Your task to perform on an android device: Open Chrome and go to the settings page Image 0: 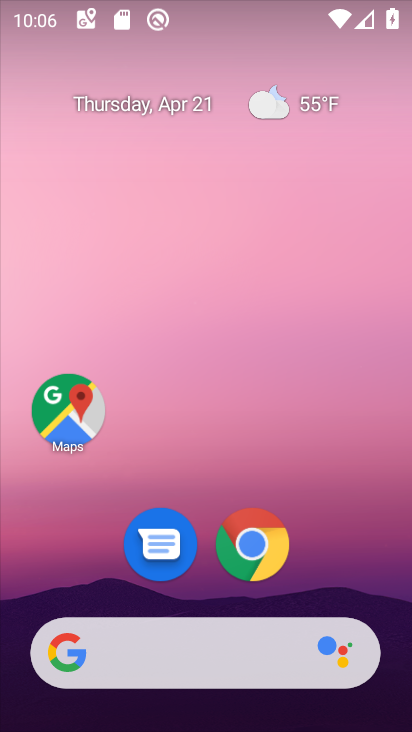
Step 0: drag from (347, 586) to (220, 29)
Your task to perform on an android device: Open Chrome and go to the settings page Image 1: 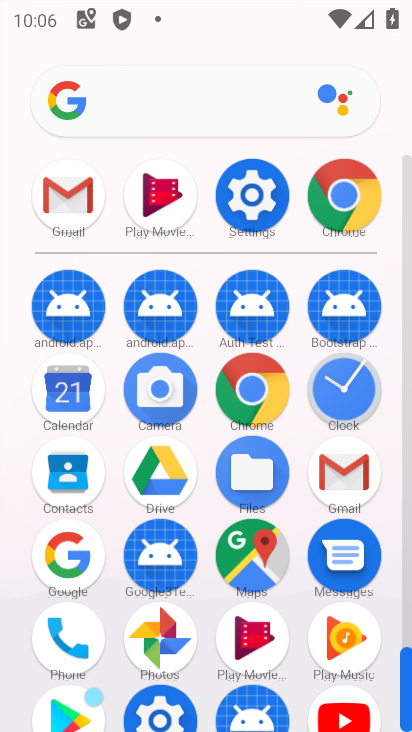
Step 1: click (249, 386)
Your task to perform on an android device: Open Chrome and go to the settings page Image 2: 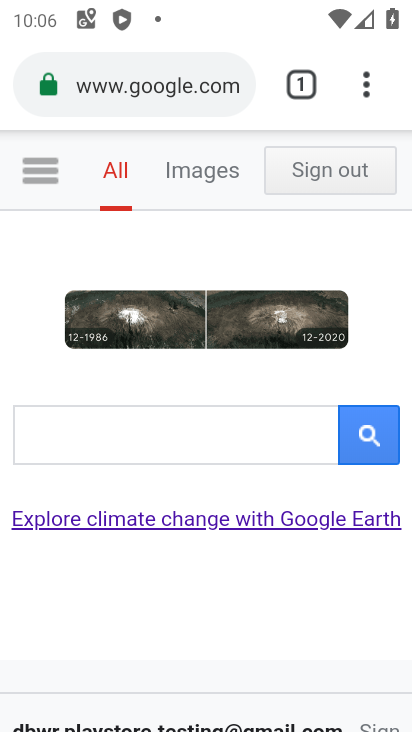
Step 2: task complete